Your task to perform on an android device: turn off improve location accuracy Image 0: 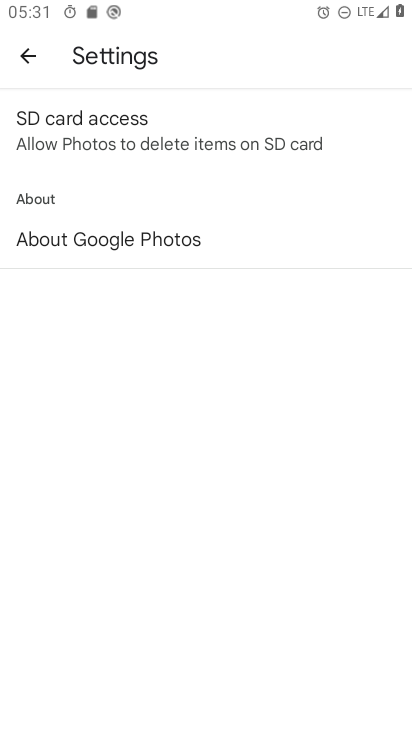
Step 0: press home button
Your task to perform on an android device: turn off improve location accuracy Image 1: 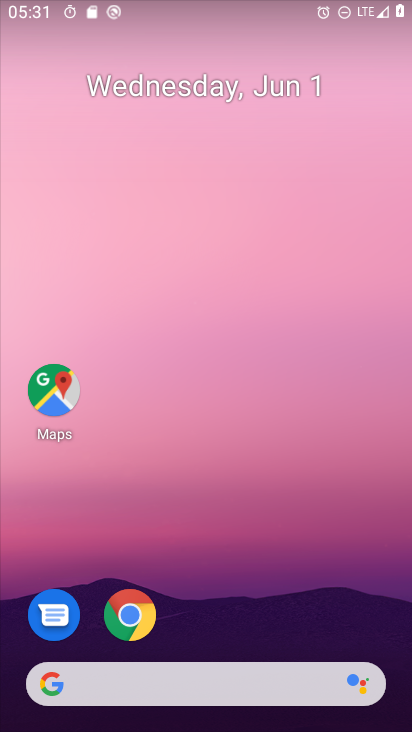
Step 1: drag from (220, 670) to (303, 12)
Your task to perform on an android device: turn off improve location accuracy Image 2: 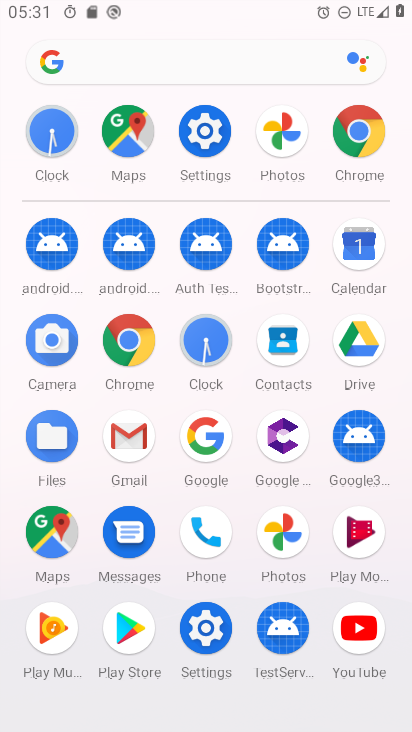
Step 2: click (211, 128)
Your task to perform on an android device: turn off improve location accuracy Image 3: 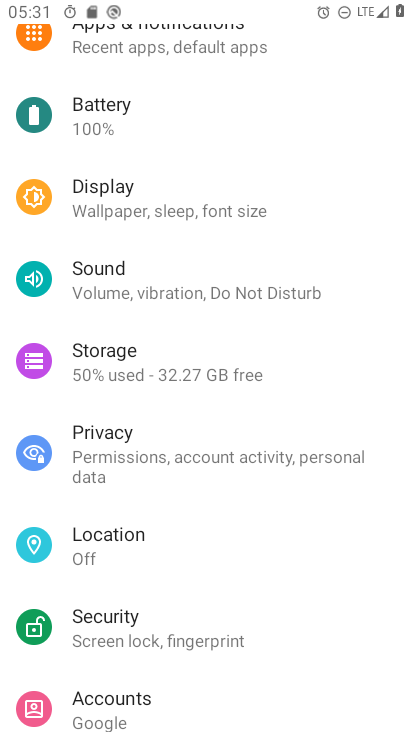
Step 3: click (154, 543)
Your task to perform on an android device: turn off improve location accuracy Image 4: 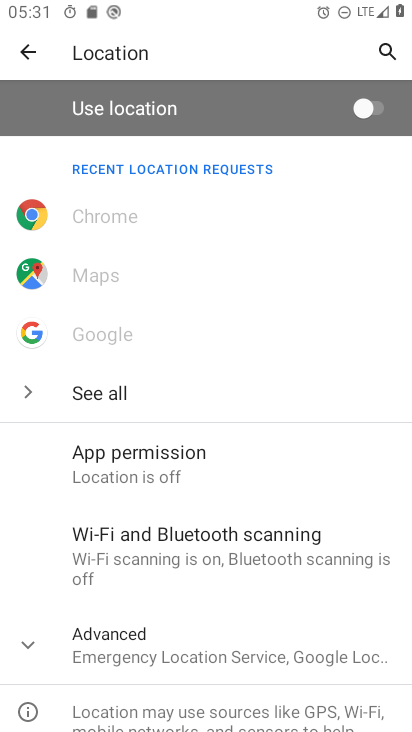
Step 4: click (194, 649)
Your task to perform on an android device: turn off improve location accuracy Image 5: 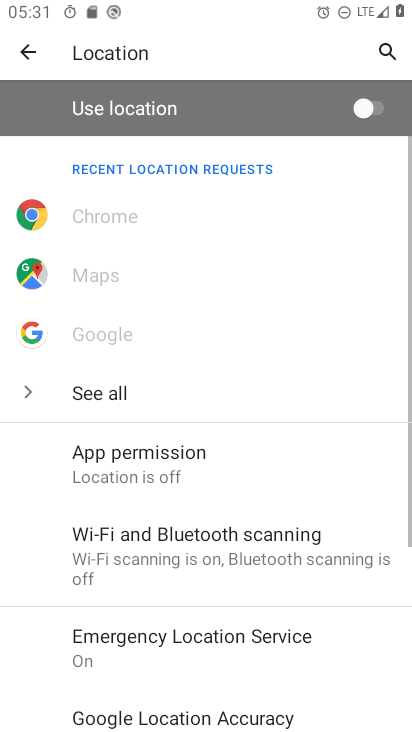
Step 5: drag from (205, 676) to (257, 394)
Your task to perform on an android device: turn off improve location accuracy Image 6: 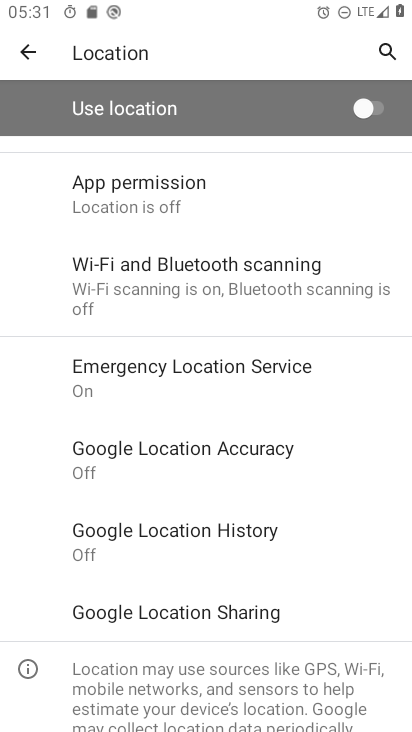
Step 6: click (264, 465)
Your task to perform on an android device: turn off improve location accuracy Image 7: 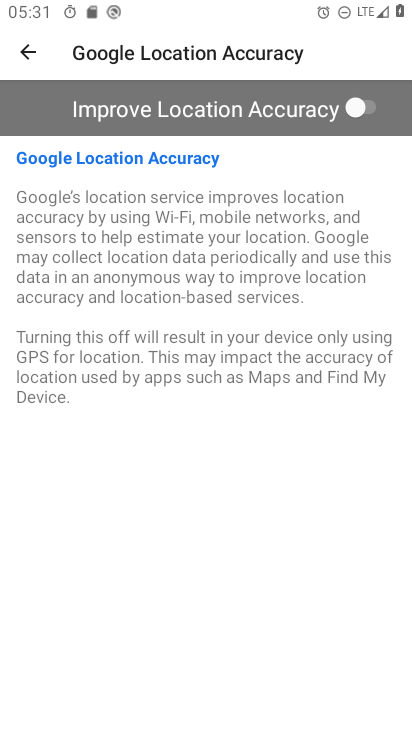
Step 7: task complete